Your task to perform on an android device: turn off airplane mode Image 0: 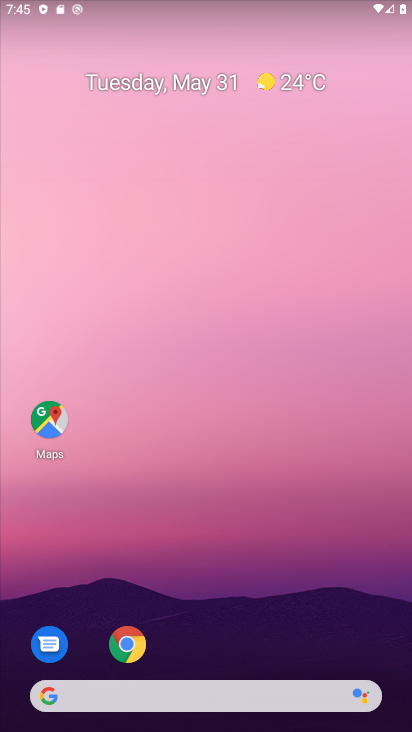
Step 0: drag from (262, 634) to (257, 271)
Your task to perform on an android device: turn off airplane mode Image 1: 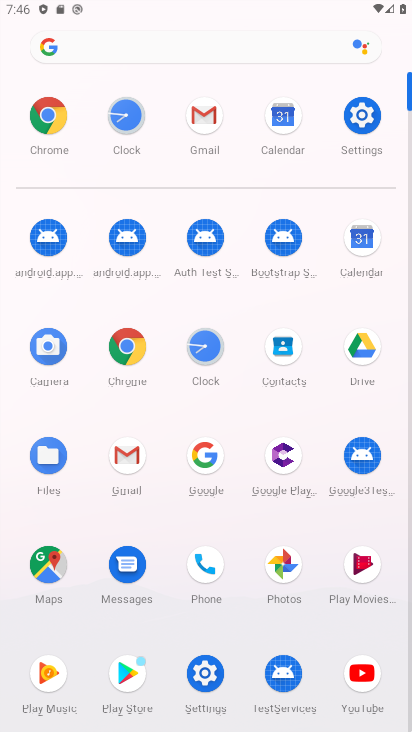
Step 1: click (355, 120)
Your task to perform on an android device: turn off airplane mode Image 2: 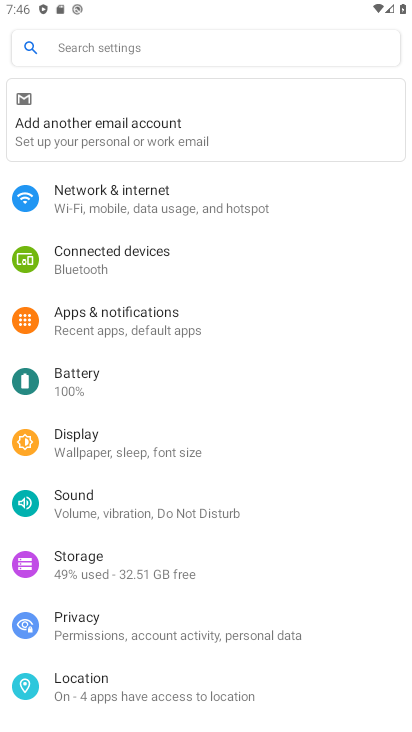
Step 2: click (226, 210)
Your task to perform on an android device: turn off airplane mode Image 3: 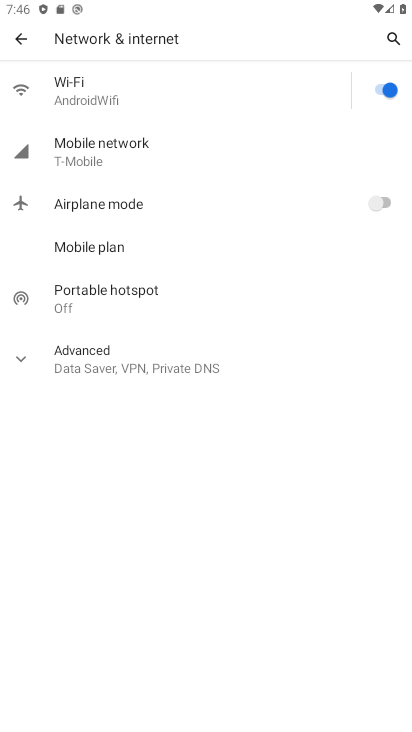
Step 3: task complete